Your task to perform on an android device: Go to Maps Image 0: 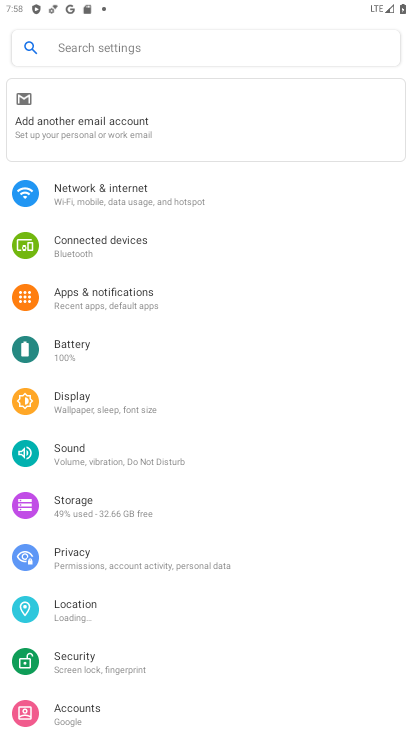
Step 0: press home button
Your task to perform on an android device: Go to Maps Image 1: 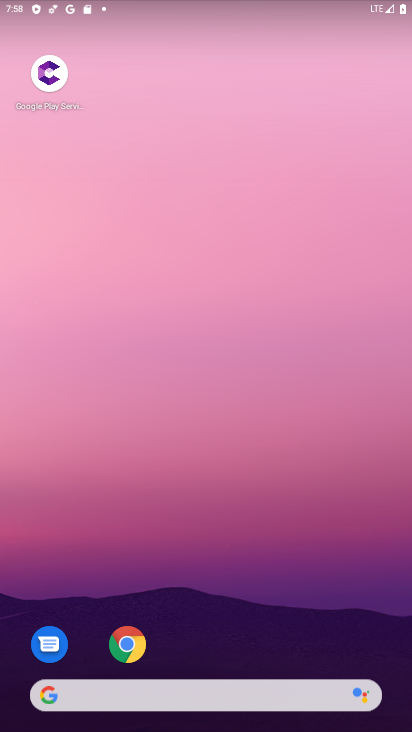
Step 1: drag from (57, 357) to (410, 357)
Your task to perform on an android device: Go to Maps Image 2: 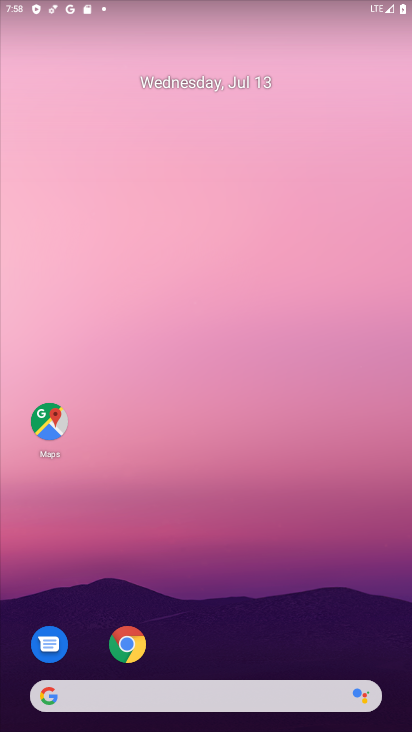
Step 2: click (54, 421)
Your task to perform on an android device: Go to Maps Image 3: 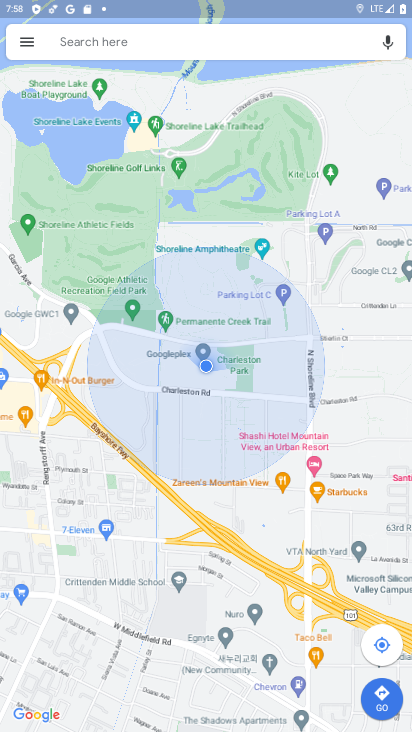
Step 3: task complete